Your task to perform on an android device: change keyboard looks Image 0: 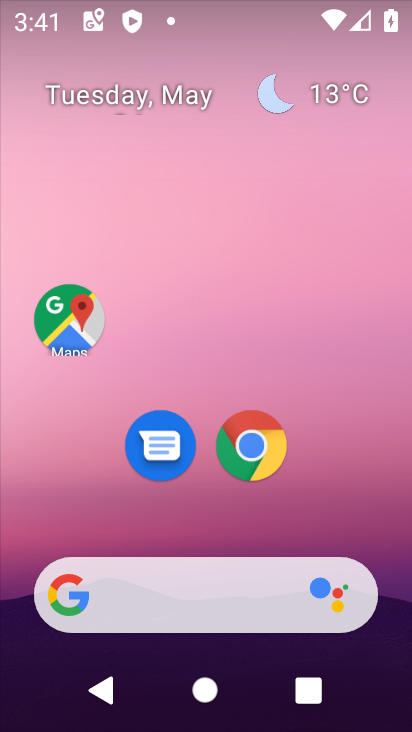
Step 0: press home button
Your task to perform on an android device: change keyboard looks Image 1: 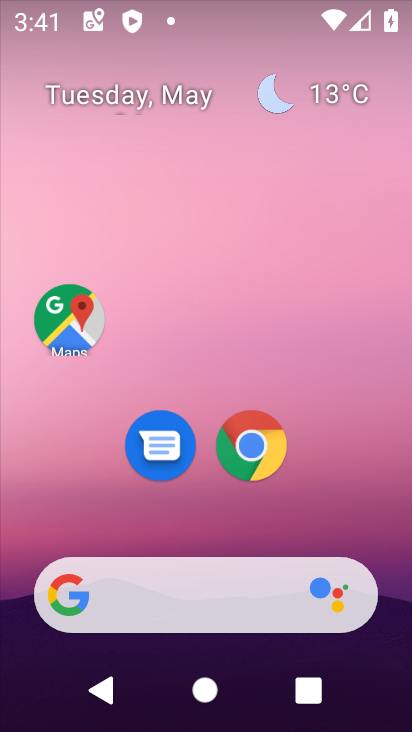
Step 1: drag from (194, 527) to (230, 1)
Your task to perform on an android device: change keyboard looks Image 2: 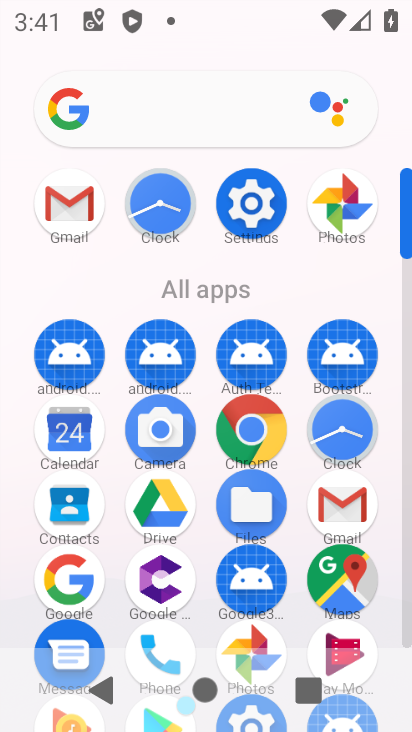
Step 2: click (250, 196)
Your task to perform on an android device: change keyboard looks Image 3: 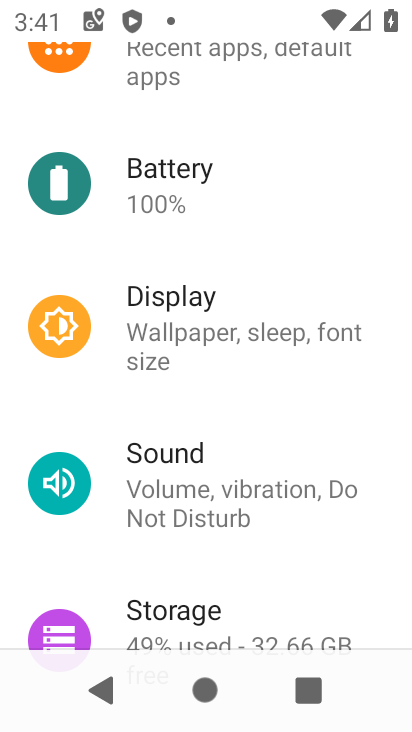
Step 3: drag from (239, 593) to (235, 192)
Your task to perform on an android device: change keyboard looks Image 4: 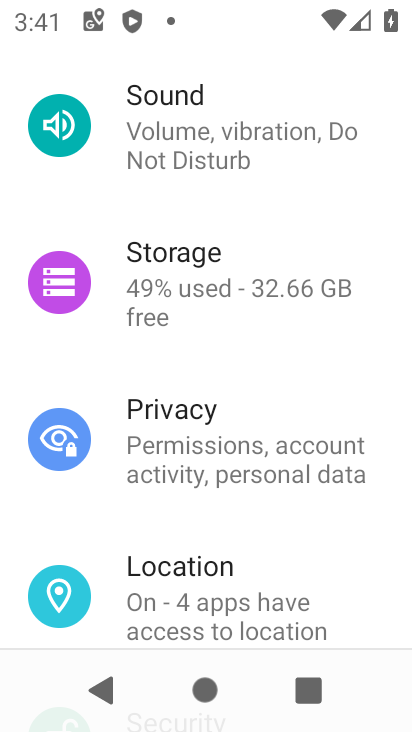
Step 4: drag from (241, 601) to (243, 147)
Your task to perform on an android device: change keyboard looks Image 5: 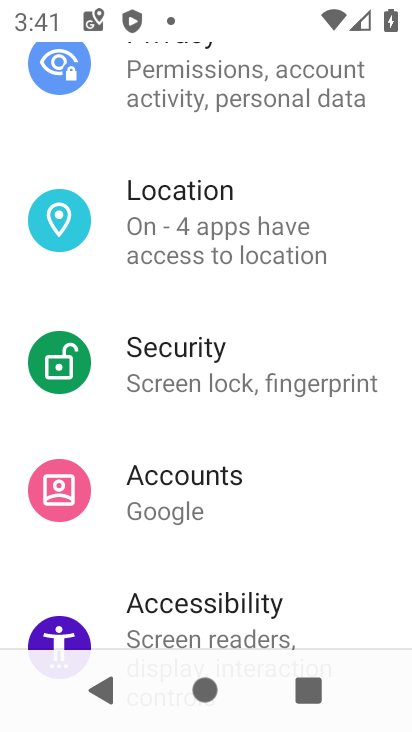
Step 5: drag from (240, 573) to (242, 79)
Your task to perform on an android device: change keyboard looks Image 6: 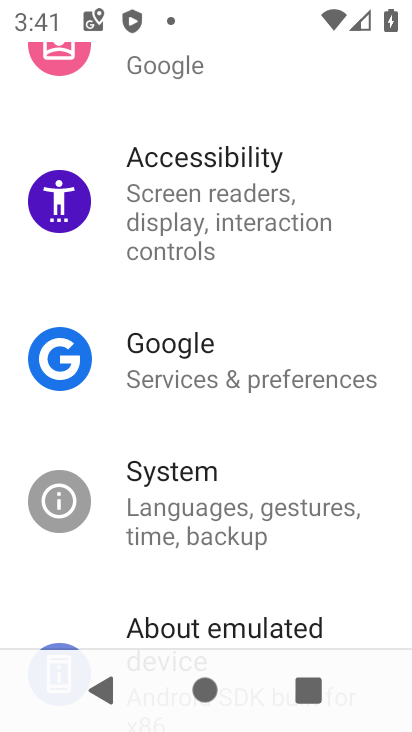
Step 6: click (224, 489)
Your task to perform on an android device: change keyboard looks Image 7: 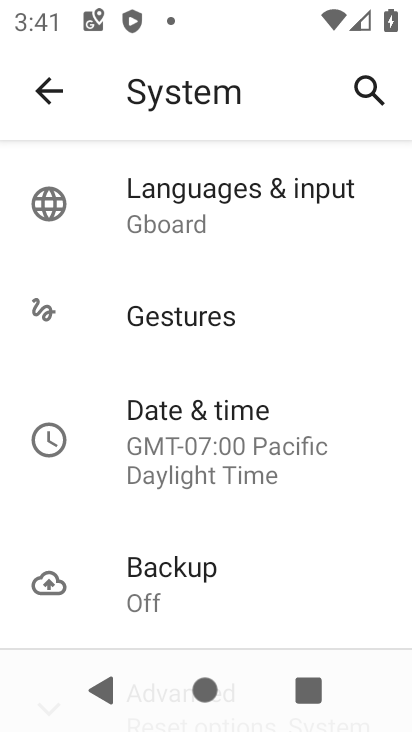
Step 7: click (100, 193)
Your task to perform on an android device: change keyboard looks Image 8: 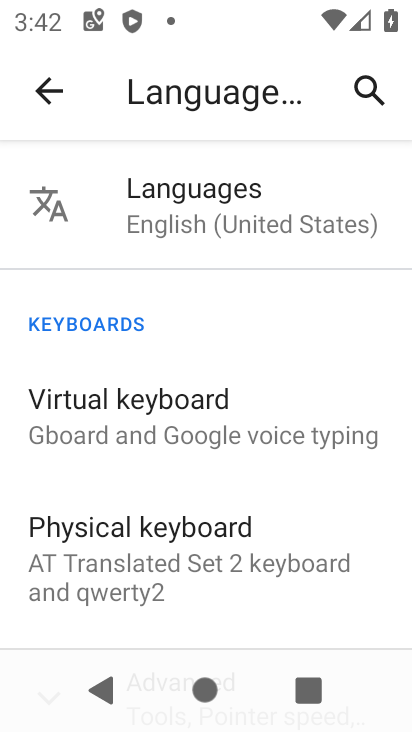
Step 8: click (157, 415)
Your task to perform on an android device: change keyboard looks Image 9: 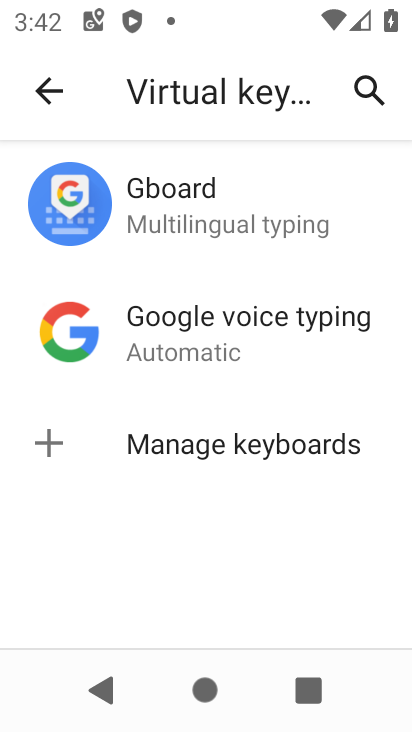
Step 9: click (161, 202)
Your task to perform on an android device: change keyboard looks Image 10: 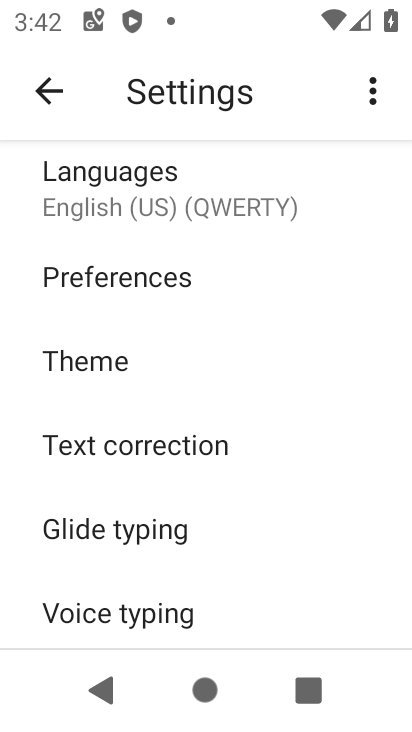
Step 10: click (136, 356)
Your task to perform on an android device: change keyboard looks Image 11: 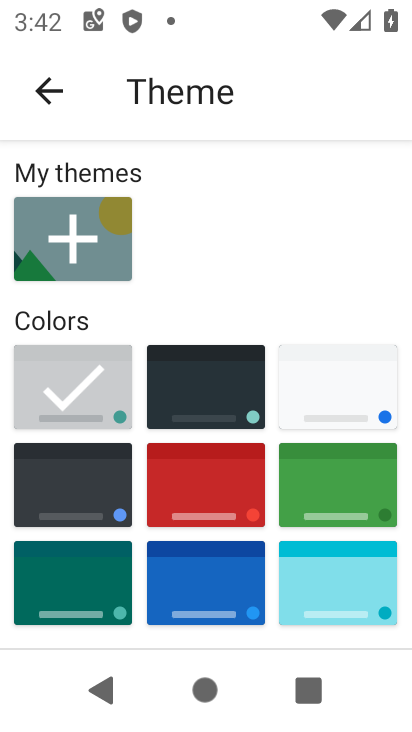
Step 11: click (219, 483)
Your task to perform on an android device: change keyboard looks Image 12: 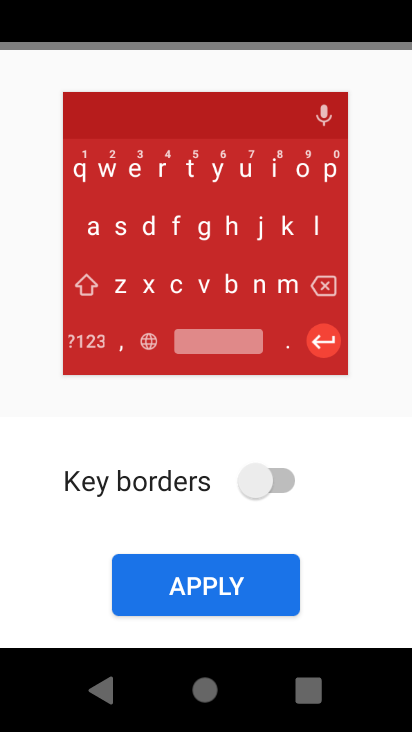
Step 12: click (211, 579)
Your task to perform on an android device: change keyboard looks Image 13: 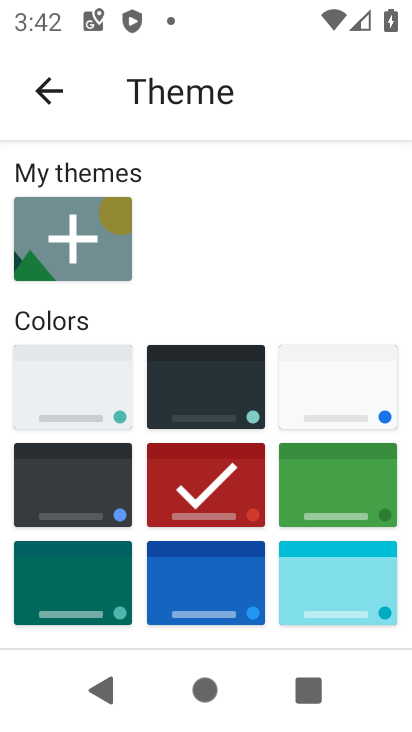
Step 13: task complete